Your task to perform on an android device: What's the weather? Image 0: 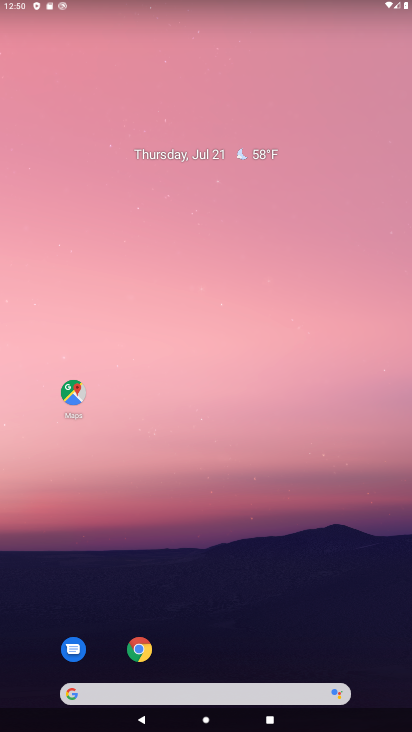
Step 0: click (281, 699)
Your task to perform on an android device: What's the weather? Image 1: 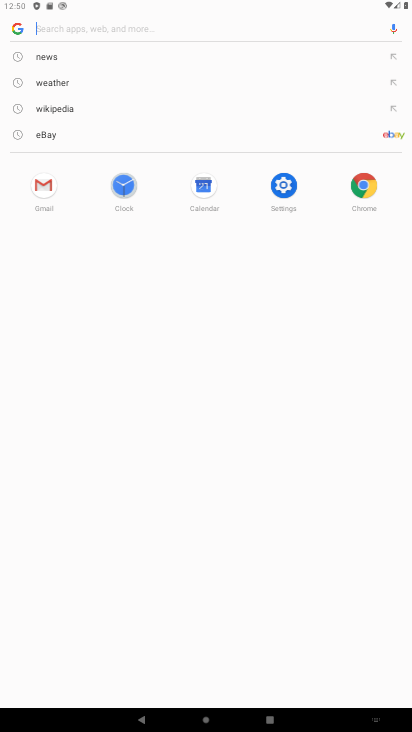
Step 1: click (68, 75)
Your task to perform on an android device: What's the weather? Image 2: 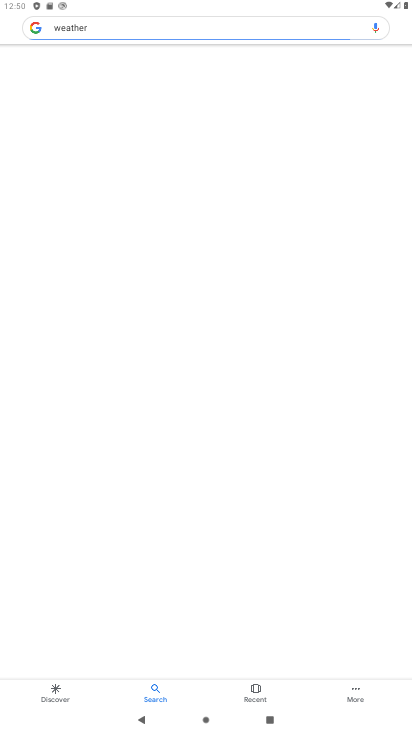
Step 2: task complete